Your task to perform on an android device: turn on notifications settings in the gmail app Image 0: 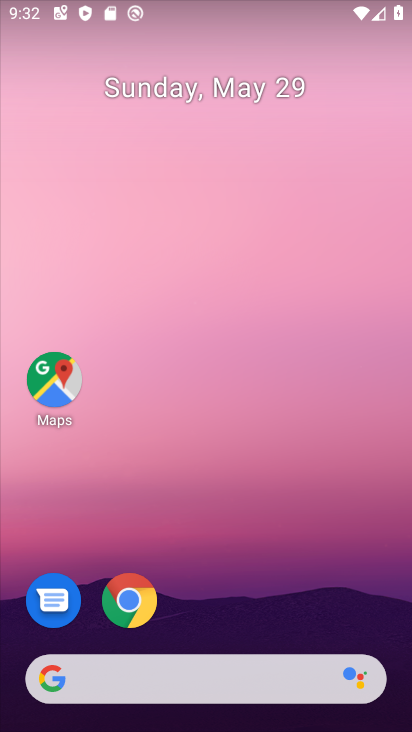
Step 0: drag from (226, 725) to (226, 79)
Your task to perform on an android device: turn on notifications settings in the gmail app Image 1: 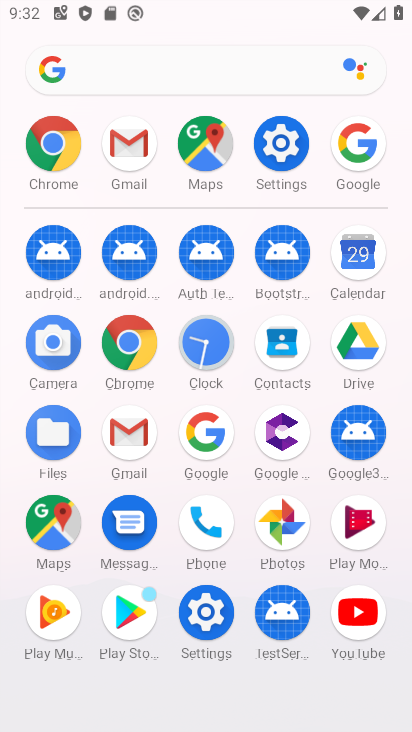
Step 1: click (129, 435)
Your task to perform on an android device: turn on notifications settings in the gmail app Image 2: 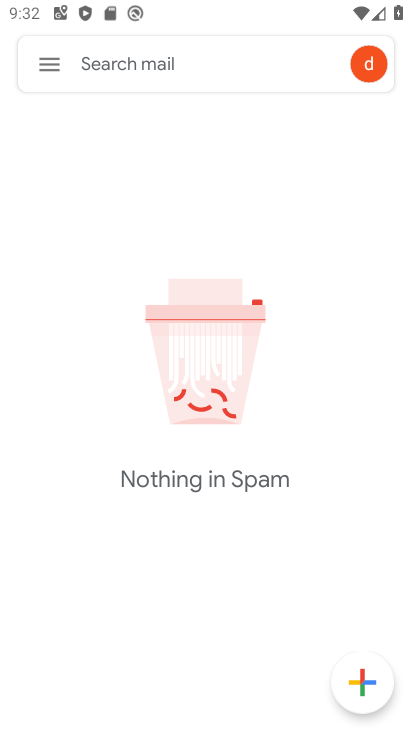
Step 2: click (28, 59)
Your task to perform on an android device: turn on notifications settings in the gmail app Image 3: 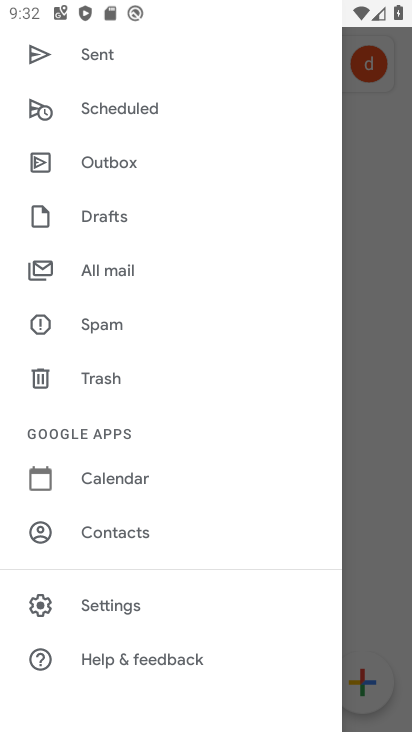
Step 3: click (120, 605)
Your task to perform on an android device: turn on notifications settings in the gmail app Image 4: 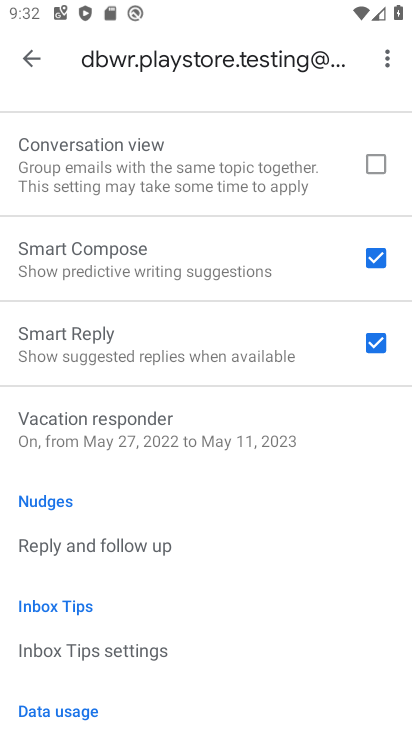
Step 4: drag from (150, 123) to (211, 615)
Your task to perform on an android device: turn on notifications settings in the gmail app Image 5: 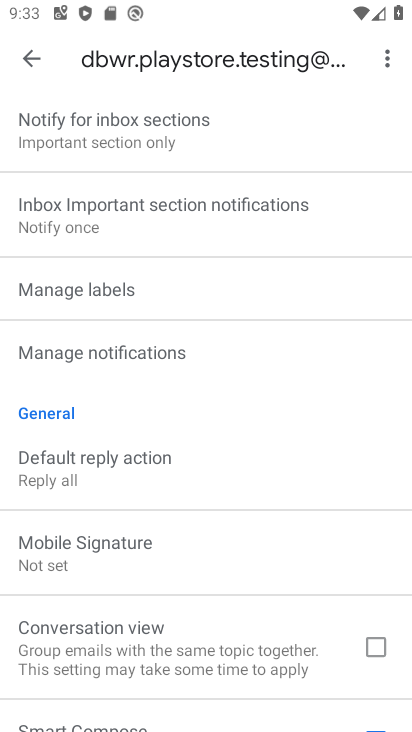
Step 5: drag from (190, 125) to (191, 497)
Your task to perform on an android device: turn on notifications settings in the gmail app Image 6: 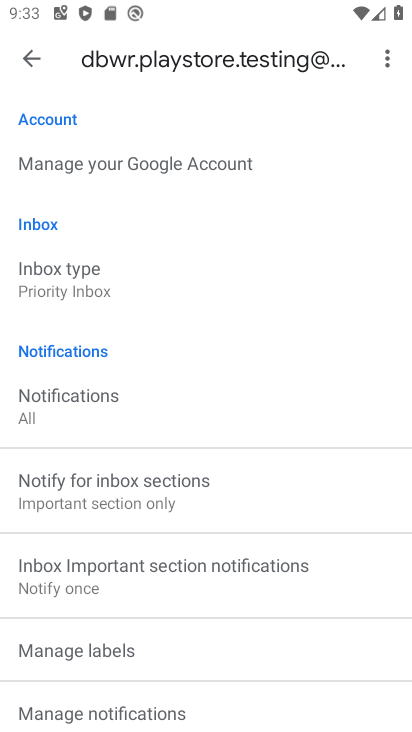
Step 6: click (78, 396)
Your task to perform on an android device: turn on notifications settings in the gmail app Image 7: 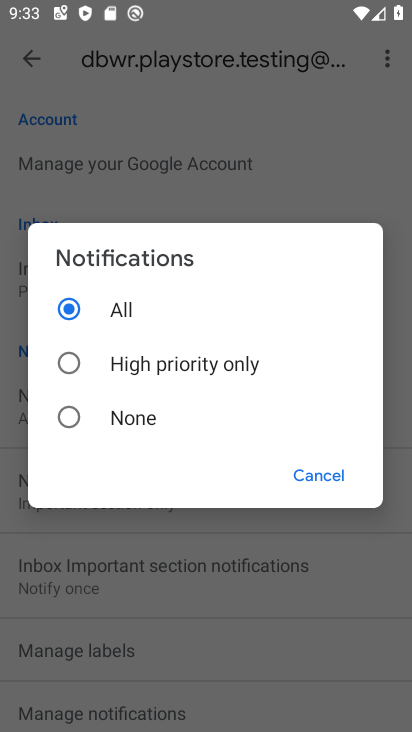
Step 7: click (334, 471)
Your task to perform on an android device: turn on notifications settings in the gmail app Image 8: 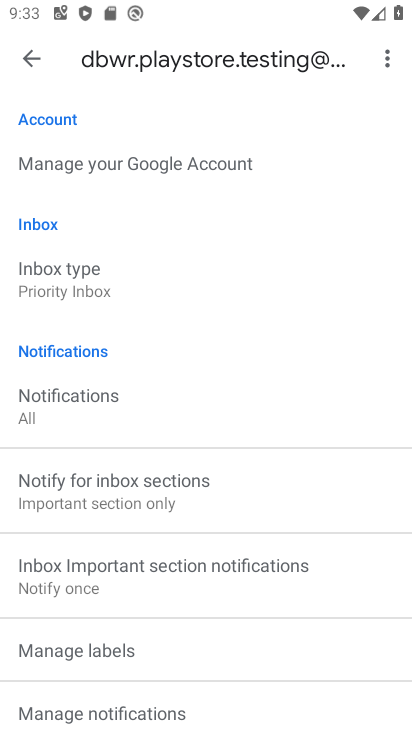
Step 8: task complete